Your task to perform on an android device: move an email to a new category in the gmail app Image 0: 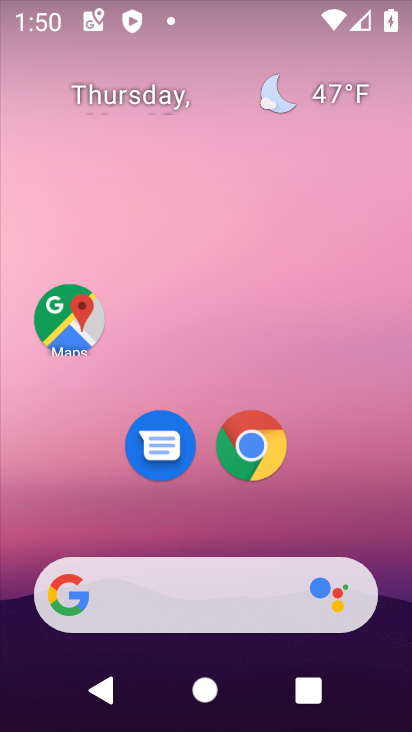
Step 0: drag from (197, 497) to (261, 208)
Your task to perform on an android device: move an email to a new category in the gmail app Image 1: 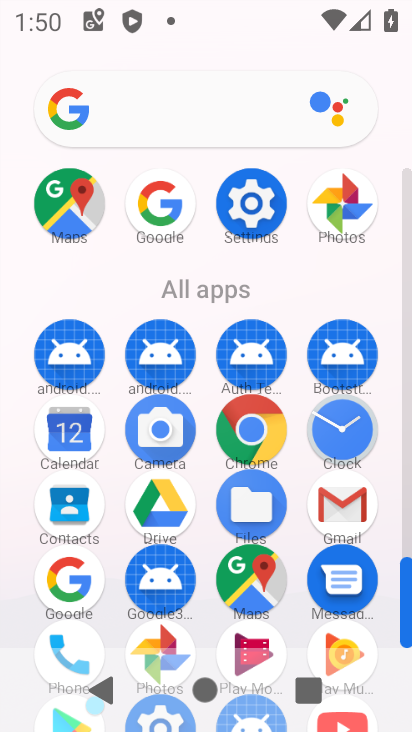
Step 1: click (324, 489)
Your task to perform on an android device: move an email to a new category in the gmail app Image 2: 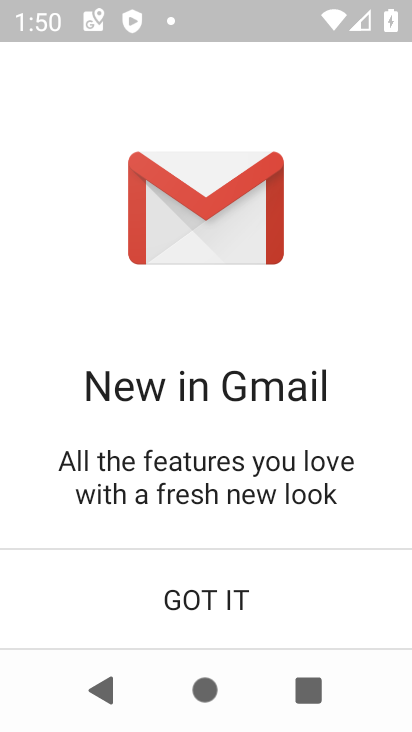
Step 2: click (276, 586)
Your task to perform on an android device: move an email to a new category in the gmail app Image 3: 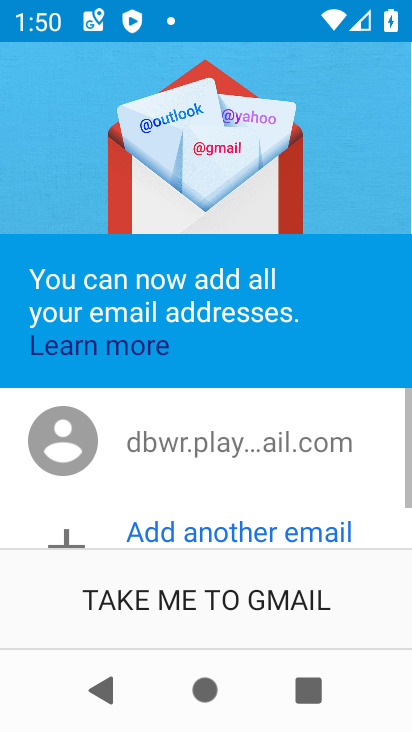
Step 3: click (285, 579)
Your task to perform on an android device: move an email to a new category in the gmail app Image 4: 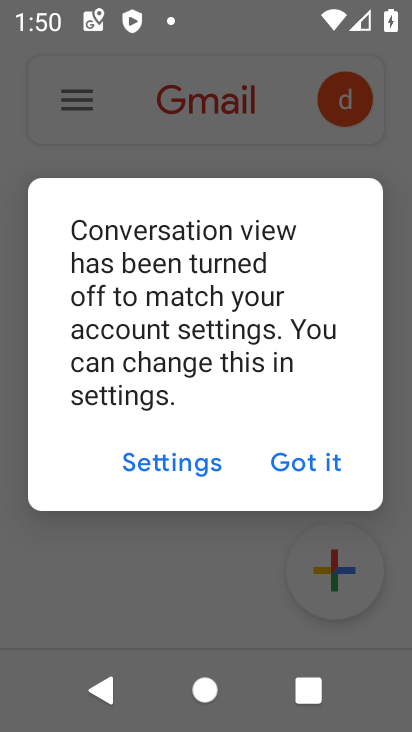
Step 4: click (281, 466)
Your task to perform on an android device: move an email to a new category in the gmail app Image 5: 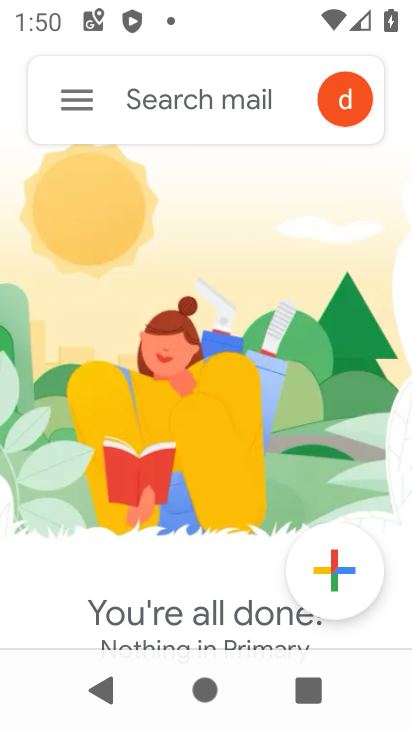
Step 5: click (86, 103)
Your task to perform on an android device: move an email to a new category in the gmail app Image 6: 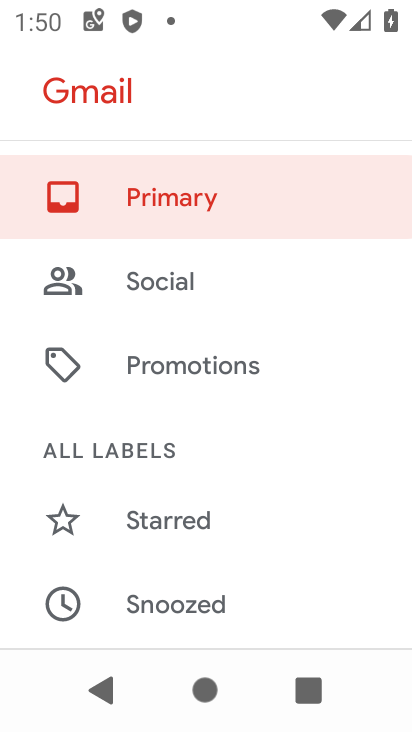
Step 6: drag from (220, 505) to (255, 320)
Your task to perform on an android device: move an email to a new category in the gmail app Image 7: 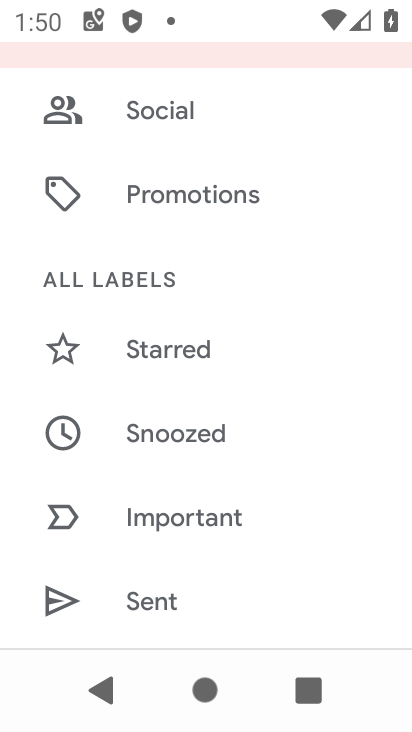
Step 7: drag from (192, 545) to (279, 256)
Your task to perform on an android device: move an email to a new category in the gmail app Image 8: 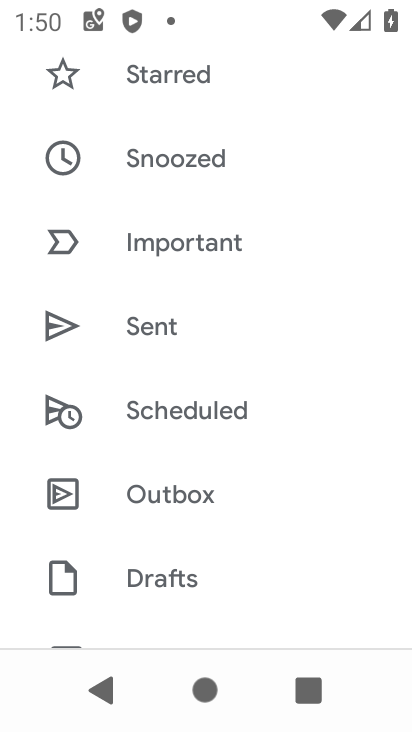
Step 8: drag from (195, 571) to (268, 354)
Your task to perform on an android device: move an email to a new category in the gmail app Image 9: 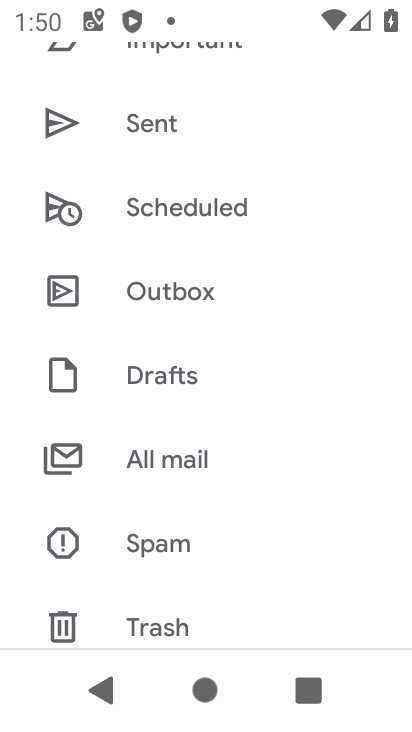
Step 9: drag from (177, 601) to (281, 285)
Your task to perform on an android device: move an email to a new category in the gmail app Image 10: 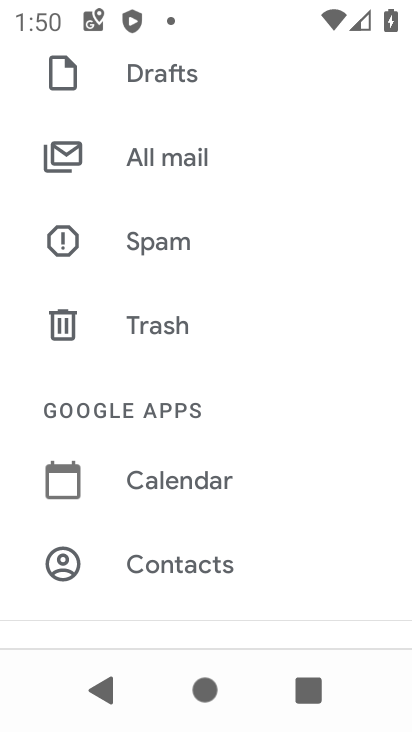
Step 10: drag from (210, 523) to (228, 334)
Your task to perform on an android device: move an email to a new category in the gmail app Image 11: 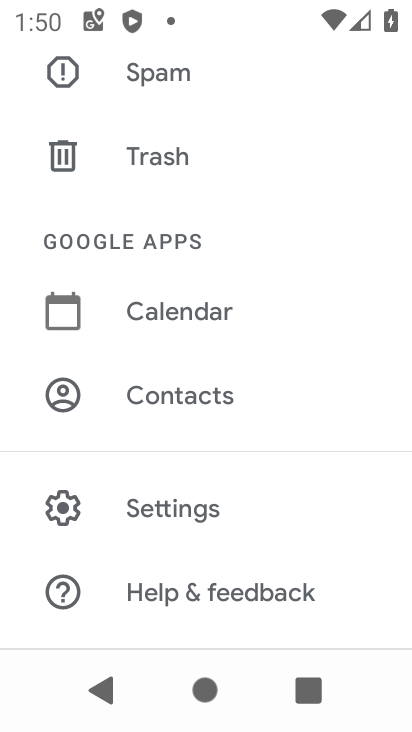
Step 11: drag from (196, 478) to (277, 222)
Your task to perform on an android device: move an email to a new category in the gmail app Image 12: 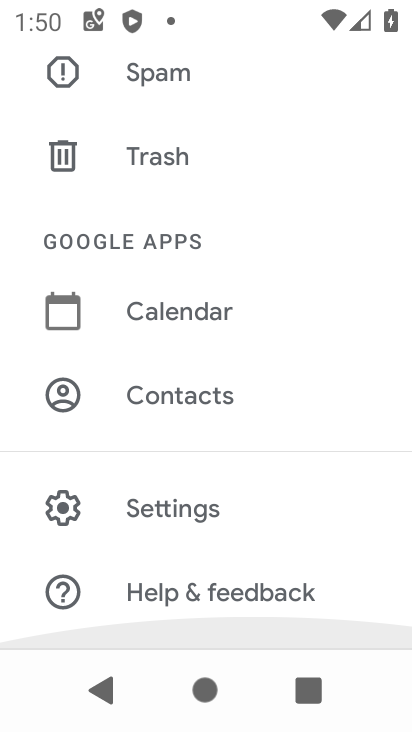
Step 12: drag from (281, 218) to (283, 491)
Your task to perform on an android device: move an email to a new category in the gmail app Image 13: 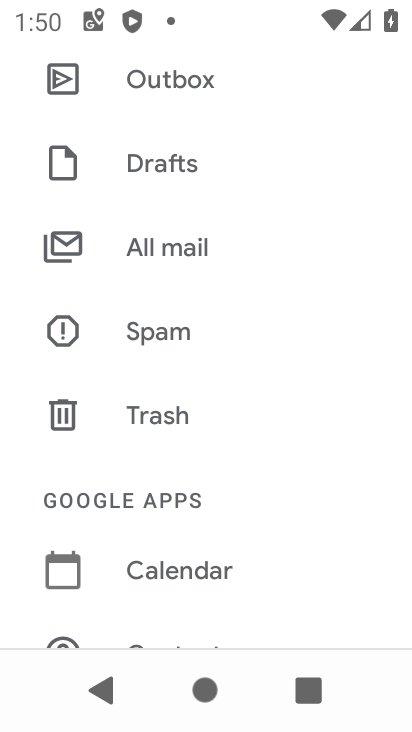
Step 13: drag from (228, 234) to (229, 453)
Your task to perform on an android device: move an email to a new category in the gmail app Image 14: 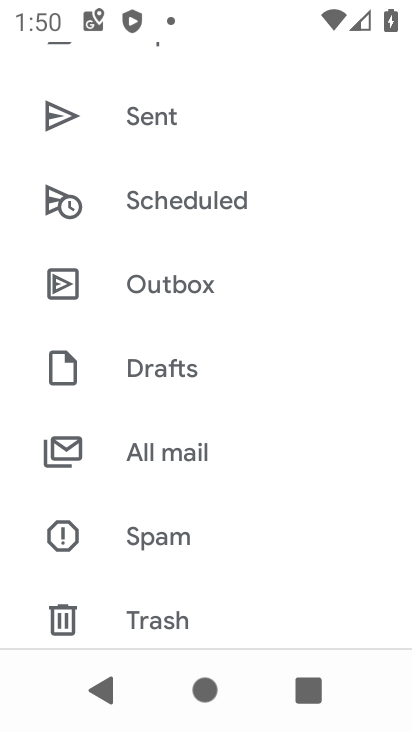
Step 14: drag from (263, 298) to (263, 540)
Your task to perform on an android device: move an email to a new category in the gmail app Image 15: 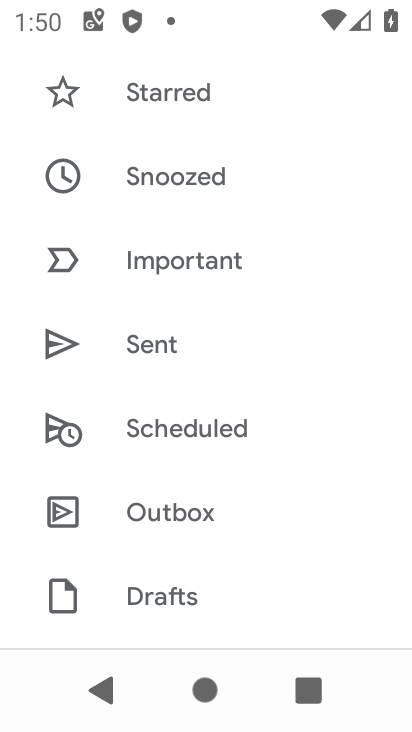
Step 15: drag from (257, 361) to (270, 571)
Your task to perform on an android device: move an email to a new category in the gmail app Image 16: 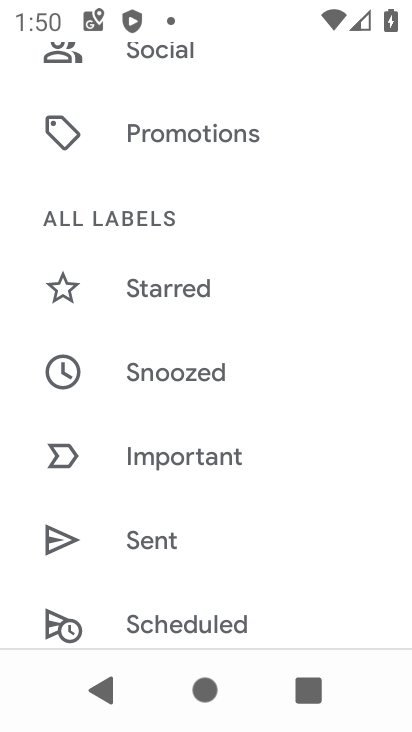
Step 16: drag from (264, 308) to (278, 500)
Your task to perform on an android device: move an email to a new category in the gmail app Image 17: 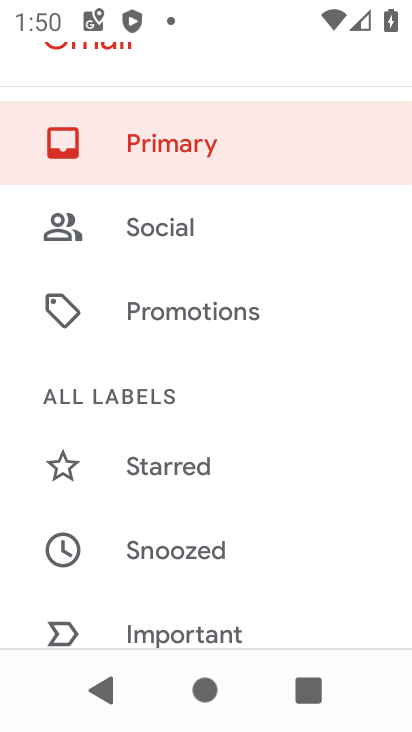
Step 17: drag from (268, 316) to (259, 538)
Your task to perform on an android device: move an email to a new category in the gmail app Image 18: 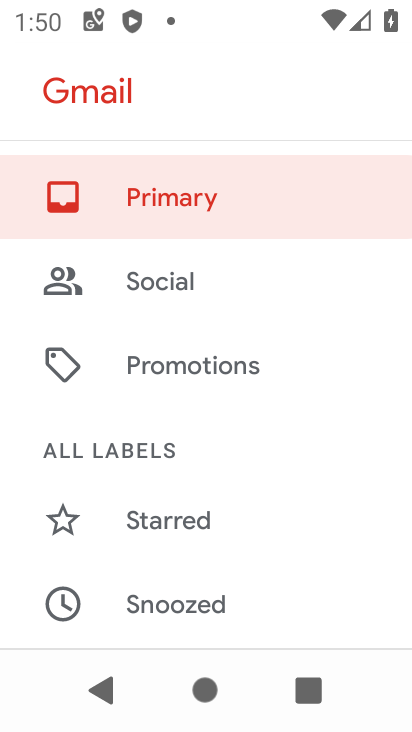
Step 18: drag from (216, 563) to (254, 310)
Your task to perform on an android device: move an email to a new category in the gmail app Image 19: 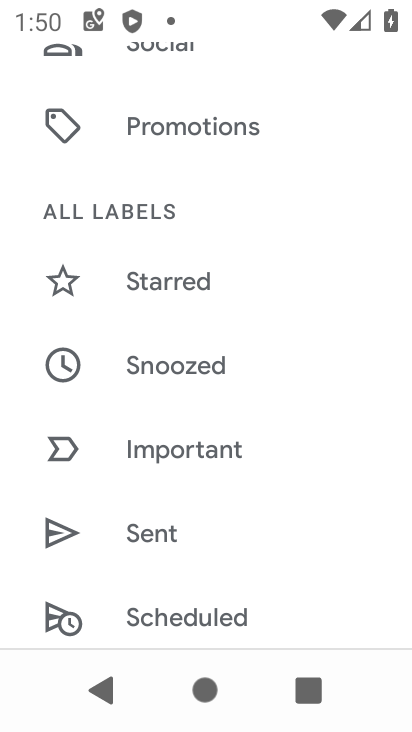
Step 19: drag from (256, 578) to (280, 336)
Your task to perform on an android device: move an email to a new category in the gmail app Image 20: 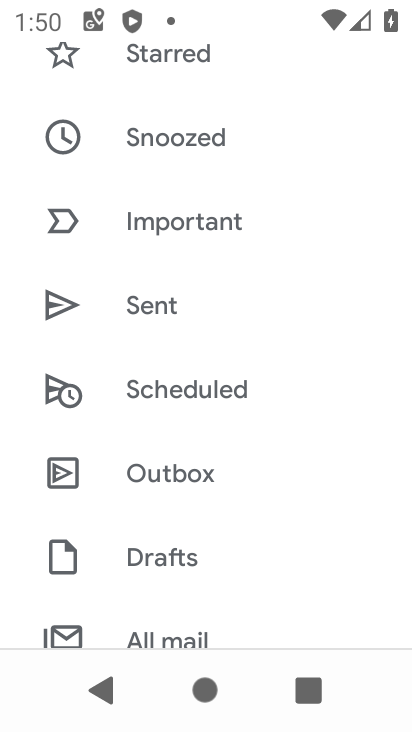
Step 20: click (196, 622)
Your task to perform on an android device: move an email to a new category in the gmail app Image 21: 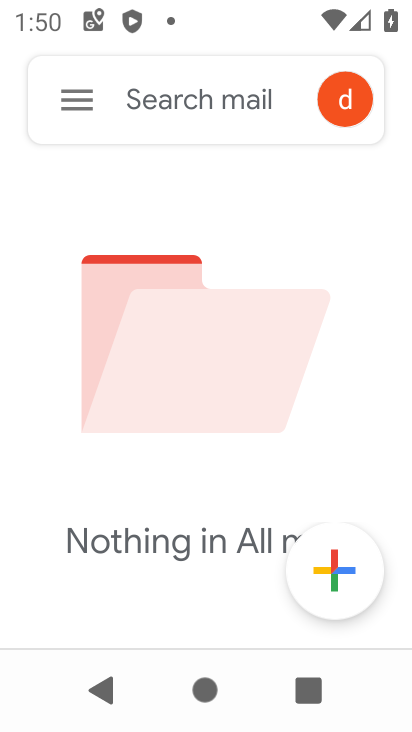
Step 21: task complete